Your task to perform on an android device: How much does the new iPad cost on eBay? Image 0: 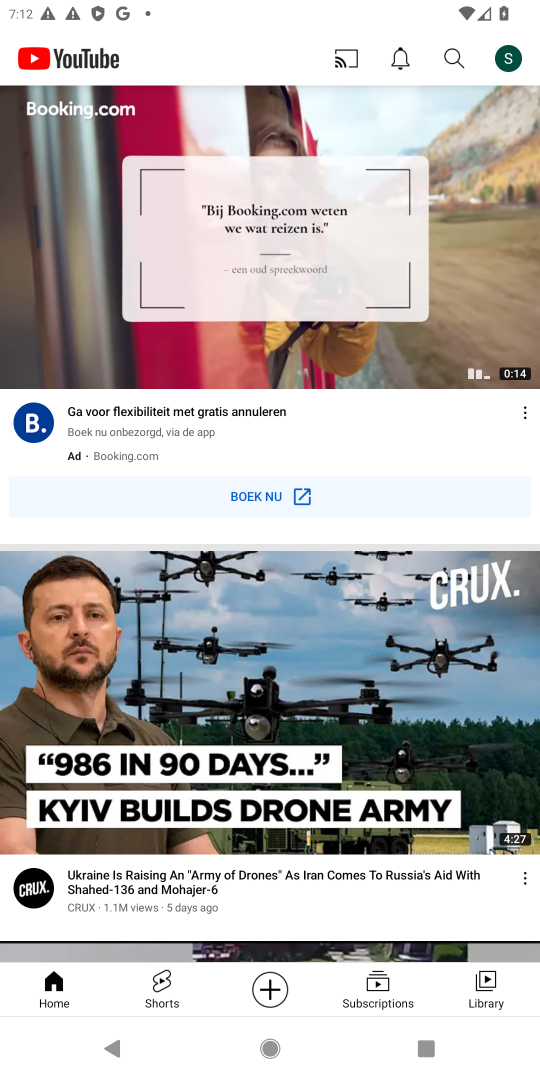
Step 0: press home button
Your task to perform on an android device: How much does the new iPad cost on eBay? Image 1: 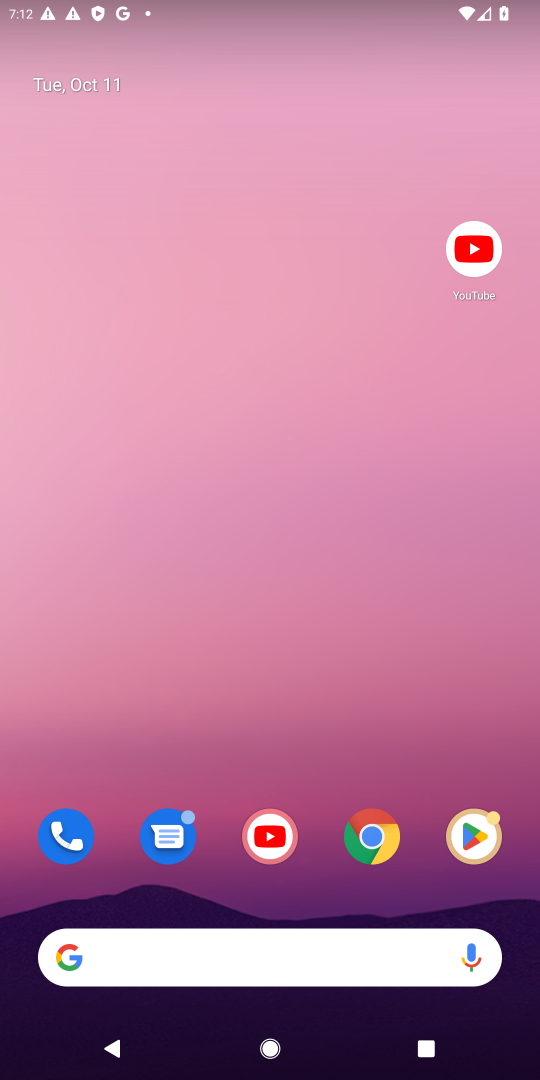
Step 1: click (381, 839)
Your task to perform on an android device: How much does the new iPad cost on eBay? Image 2: 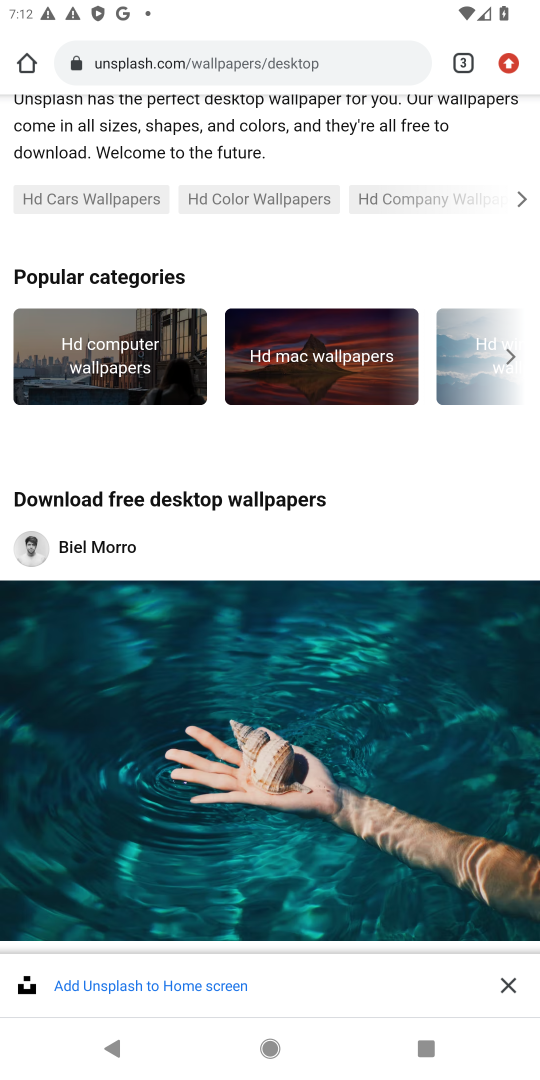
Step 2: click (228, 50)
Your task to perform on an android device: How much does the new iPad cost on eBay? Image 3: 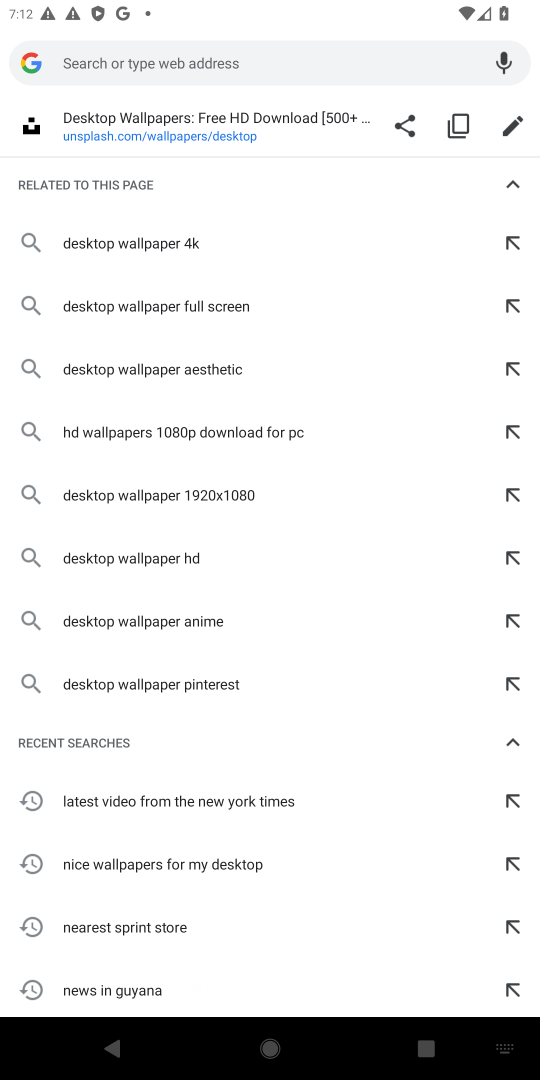
Step 3: type " new iPad cost on eBay"
Your task to perform on an android device: How much does the new iPad cost on eBay? Image 4: 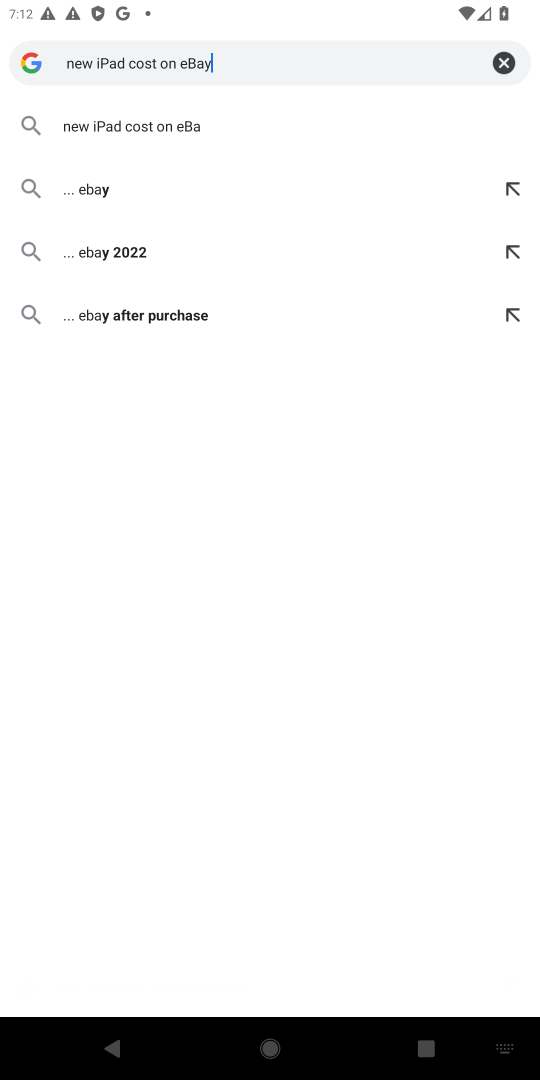
Step 4: press enter
Your task to perform on an android device: How much does the new iPad cost on eBay? Image 5: 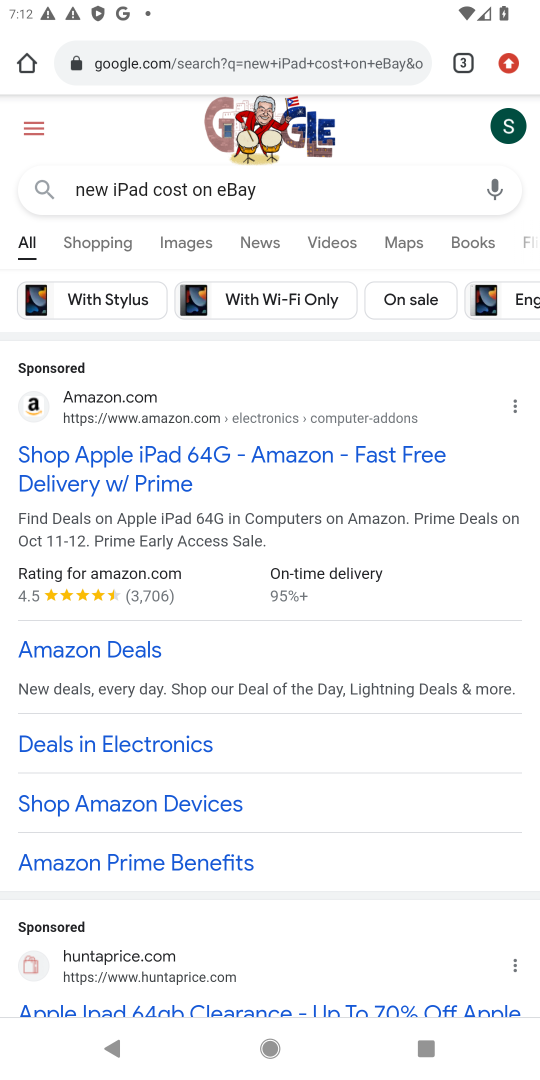
Step 5: drag from (255, 918) to (310, 426)
Your task to perform on an android device: How much does the new iPad cost on eBay? Image 6: 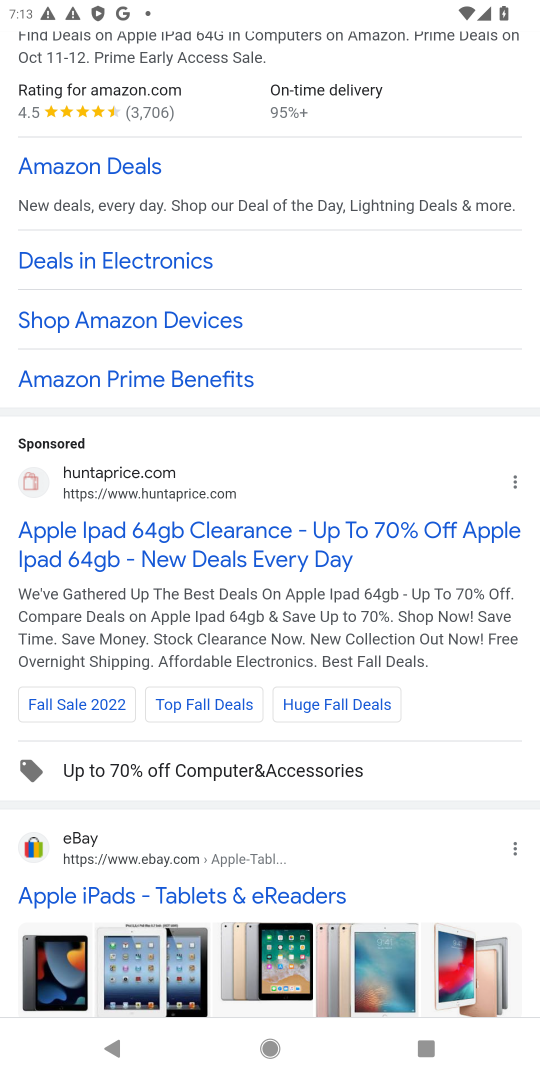
Step 6: drag from (239, 838) to (308, 511)
Your task to perform on an android device: How much does the new iPad cost on eBay? Image 7: 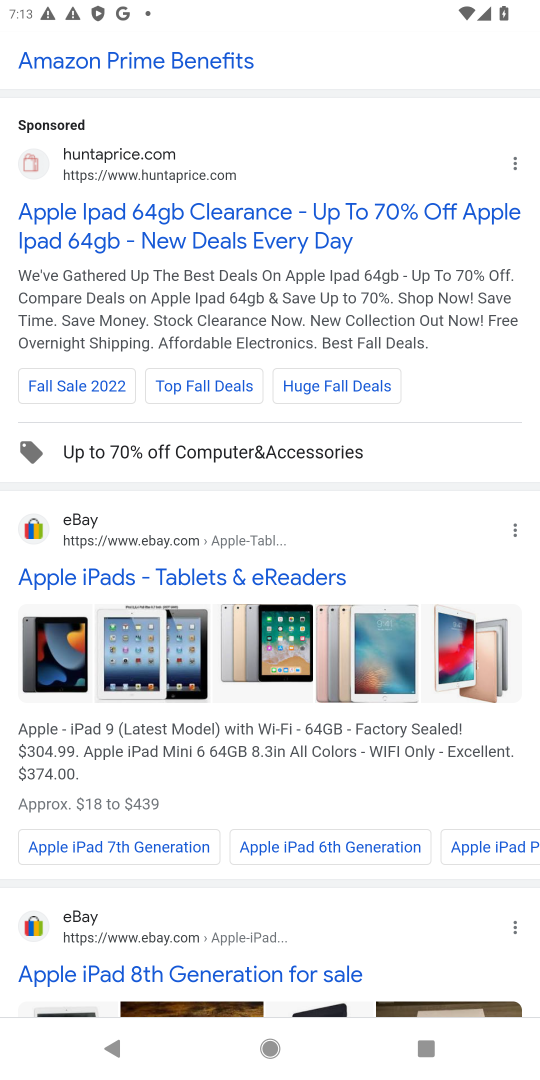
Step 7: click (269, 575)
Your task to perform on an android device: How much does the new iPad cost on eBay? Image 8: 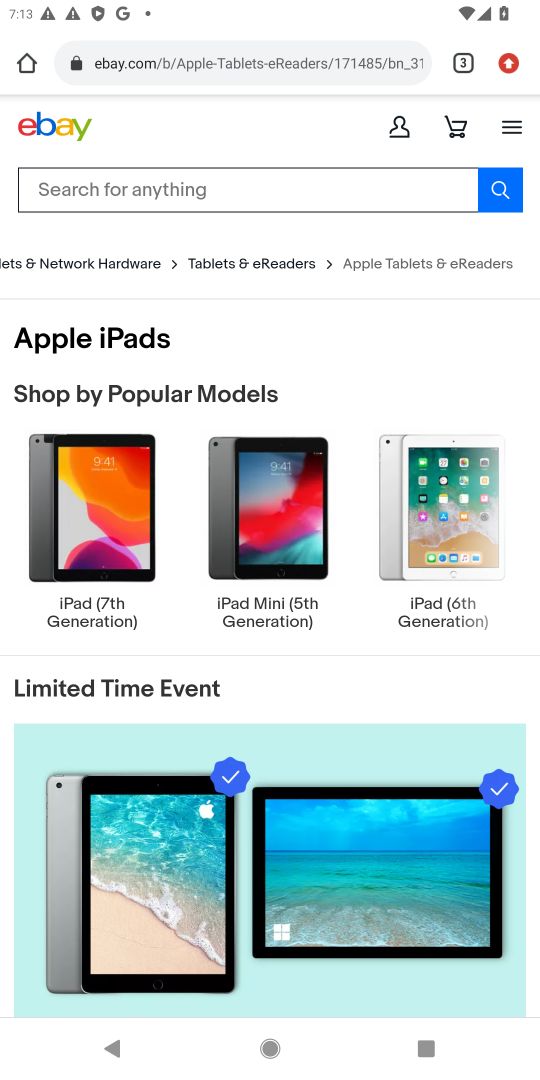
Step 8: task complete